Your task to perform on an android device: change alarm snooze length Image 0: 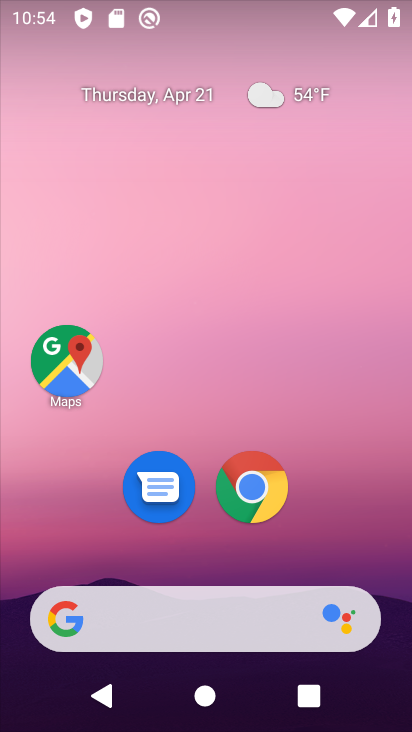
Step 0: drag from (372, 515) to (393, 162)
Your task to perform on an android device: change alarm snooze length Image 1: 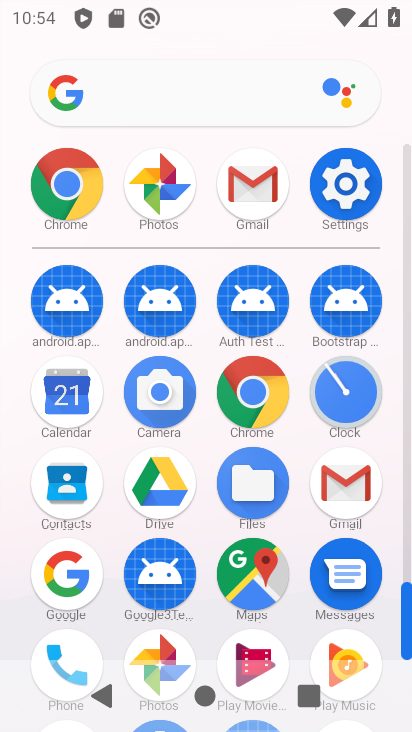
Step 1: drag from (301, 544) to (296, 317)
Your task to perform on an android device: change alarm snooze length Image 2: 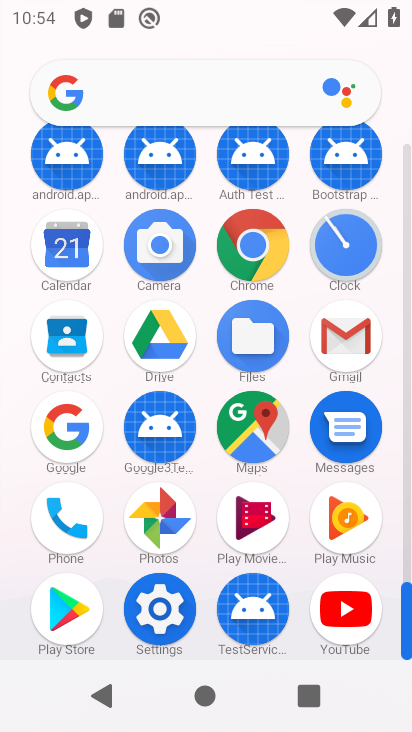
Step 2: click (351, 245)
Your task to perform on an android device: change alarm snooze length Image 3: 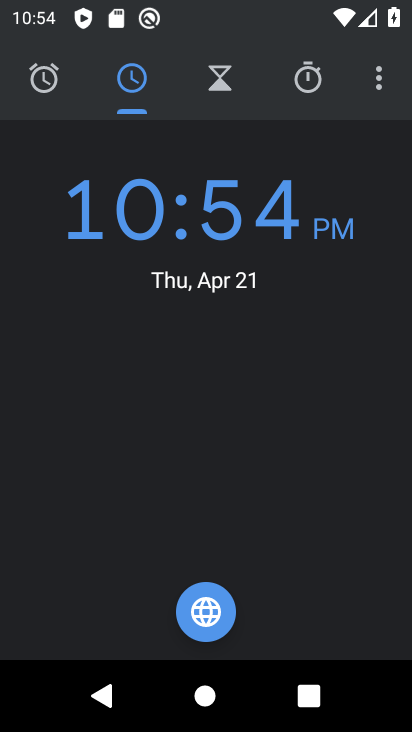
Step 3: click (385, 96)
Your task to perform on an android device: change alarm snooze length Image 4: 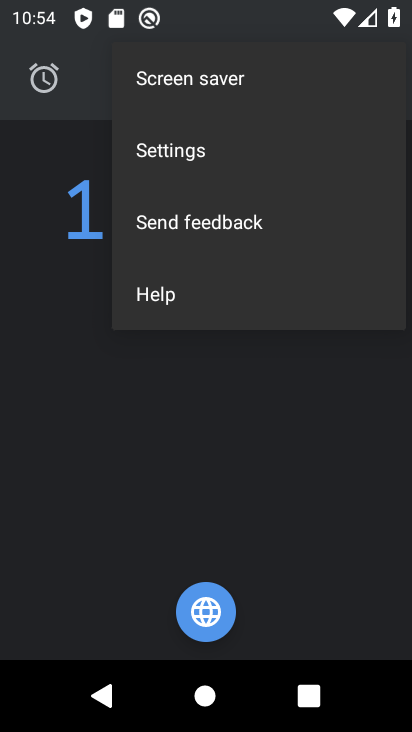
Step 4: click (242, 148)
Your task to perform on an android device: change alarm snooze length Image 5: 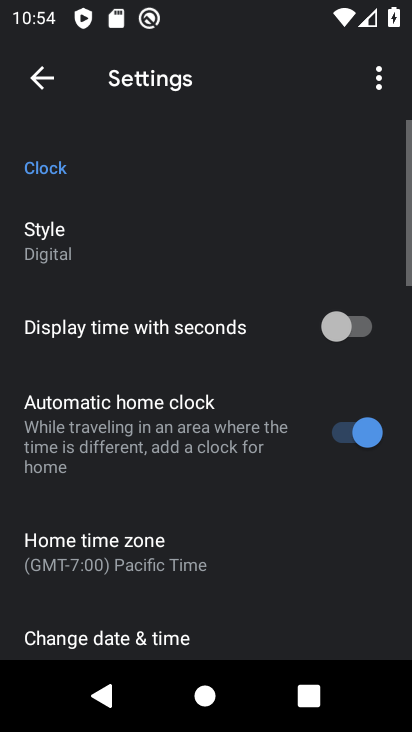
Step 5: drag from (252, 519) to (254, 224)
Your task to perform on an android device: change alarm snooze length Image 6: 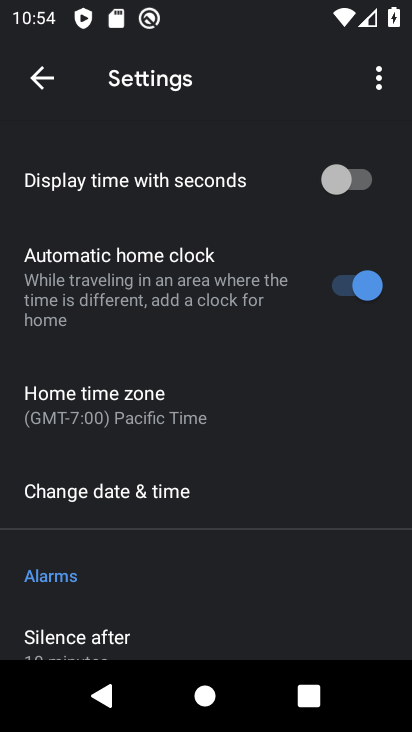
Step 6: drag from (191, 533) to (205, 293)
Your task to perform on an android device: change alarm snooze length Image 7: 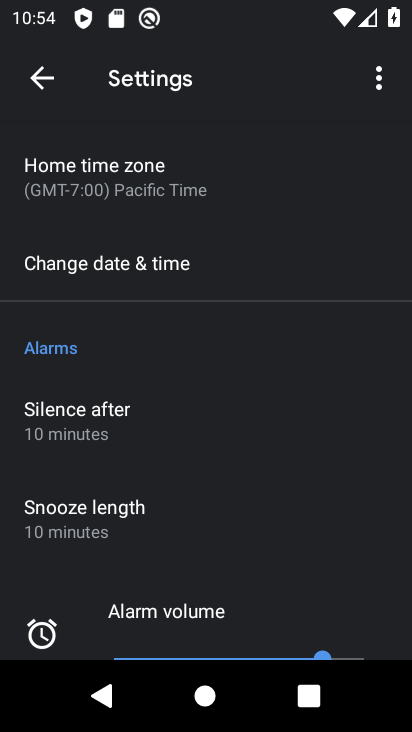
Step 7: click (115, 508)
Your task to perform on an android device: change alarm snooze length Image 8: 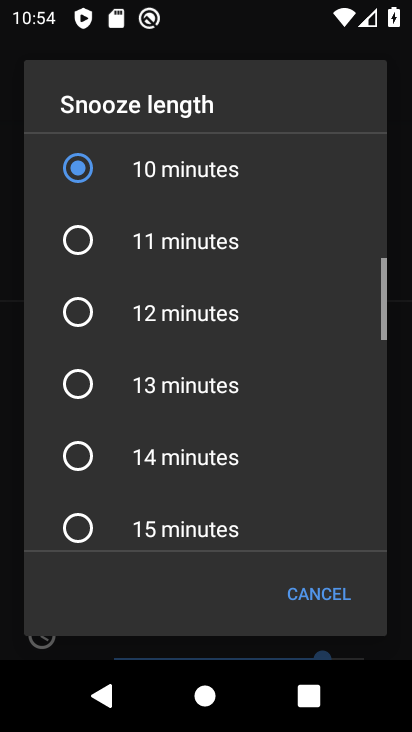
Step 8: click (145, 320)
Your task to perform on an android device: change alarm snooze length Image 9: 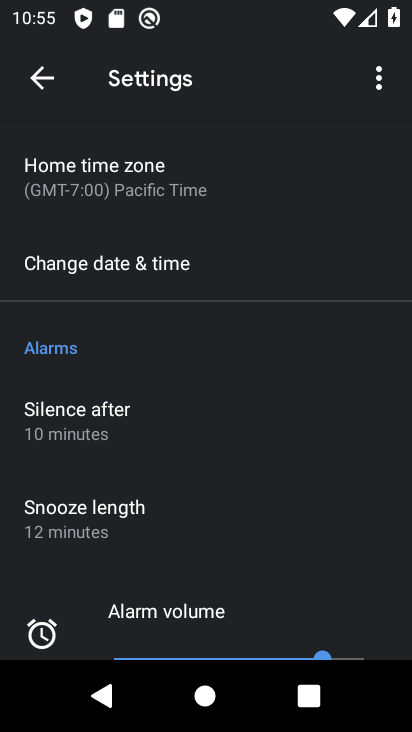
Step 9: task complete